Your task to perform on an android device: turn off smart reply in the gmail app Image 0: 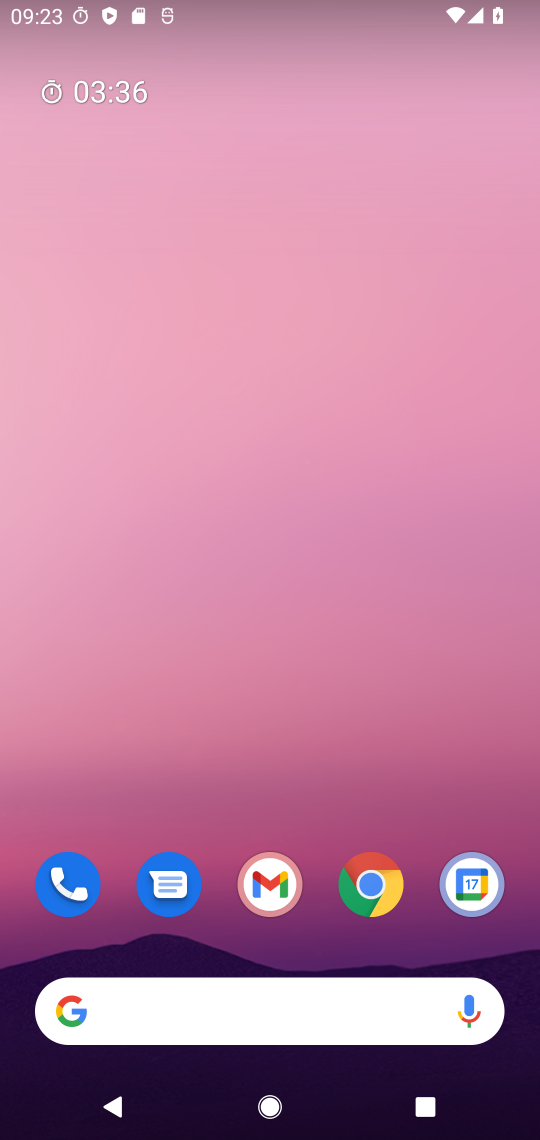
Step 0: click (277, 862)
Your task to perform on an android device: turn off smart reply in the gmail app Image 1: 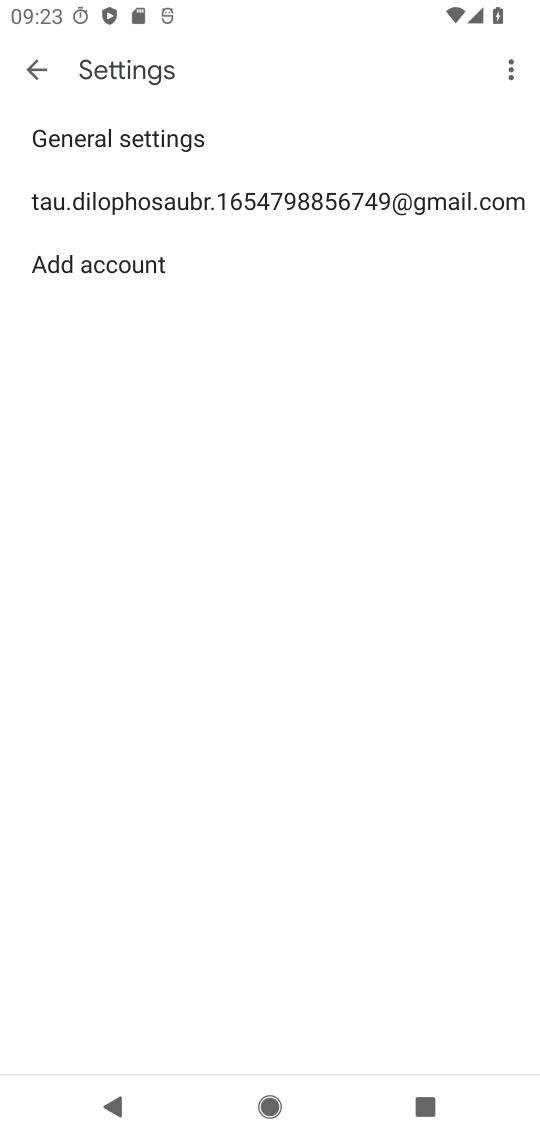
Step 1: click (126, 203)
Your task to perform on an android device: turn off smart reply in the gmail app Image 2: 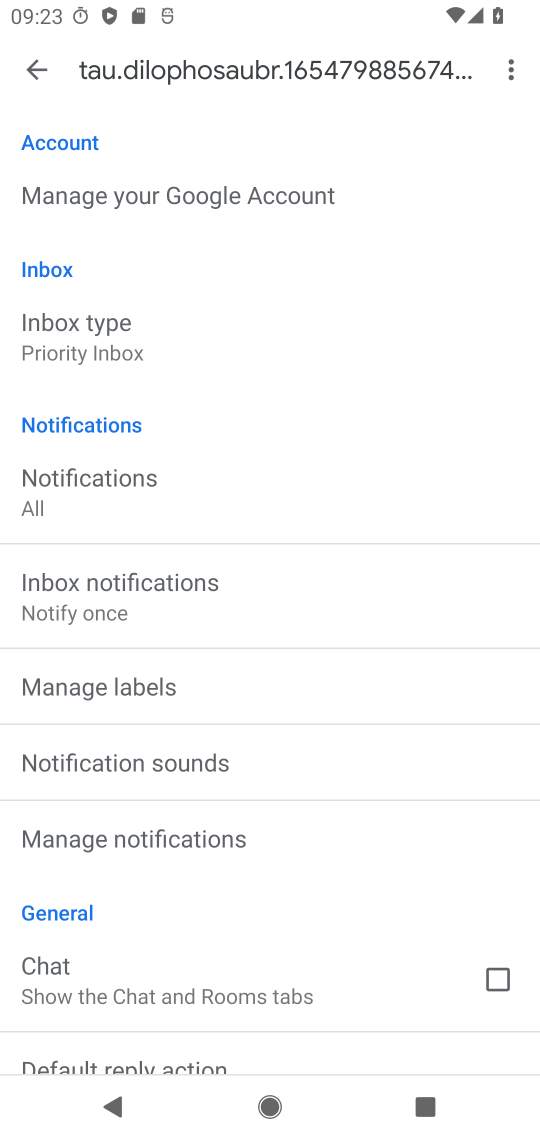
Step 2: task complete